Your task to perform on an android device: toggle improve location accuracy Image 0: 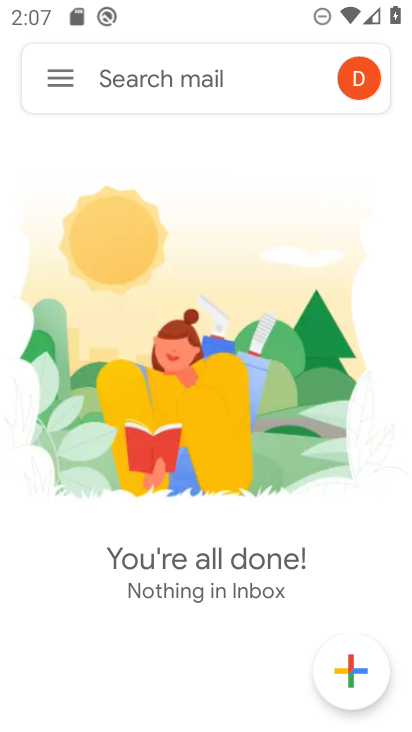
Step 0: press home button
Your task to perform on an android device: toggle improve location accuracy Image 1: 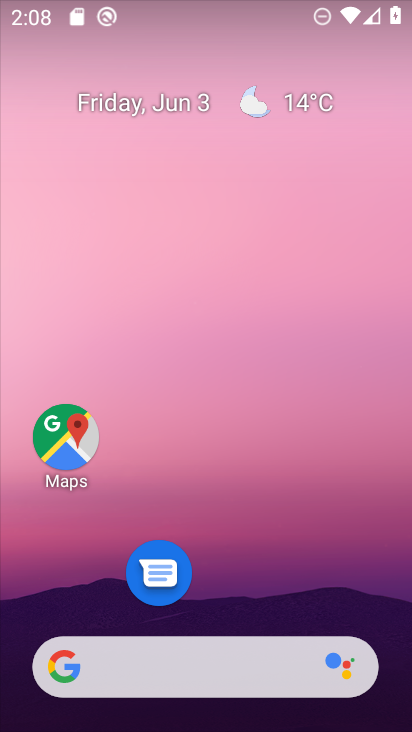
Step 1: drag from (338, 683) to (295, 68)
Your task to perform on an android device: toggle improve location accuracy Image 2: 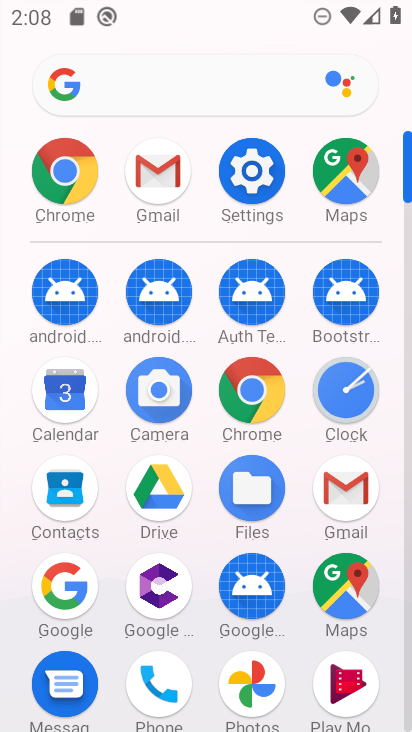
Step 2: click (251, 171)
Your task to perform on an android device: toggle improve location accuracy Image 3: 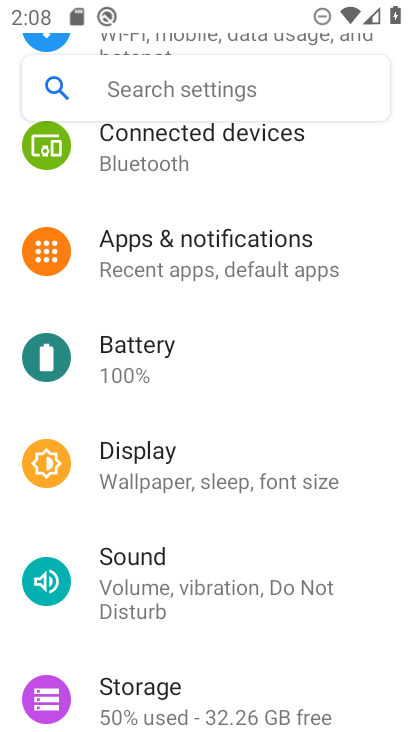
Step 3: drag from (191, 579) to (223, 209)
Your task to perform on an android device: toggle improve location accuracy Image 4: 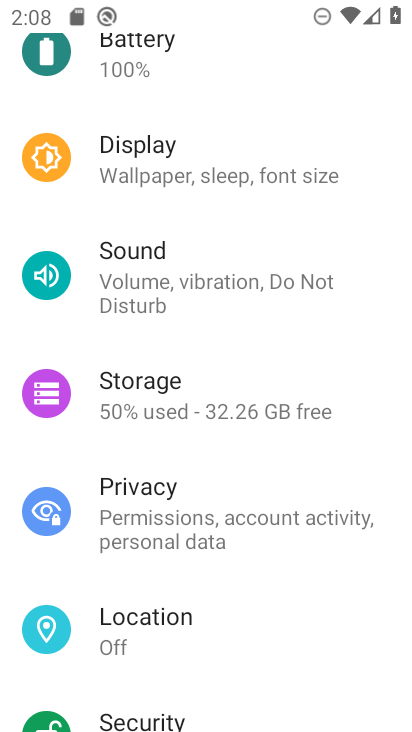
Step 4: click (191, 629)
Your task to perform on an android device: toggle improve location accuracy Image 5: 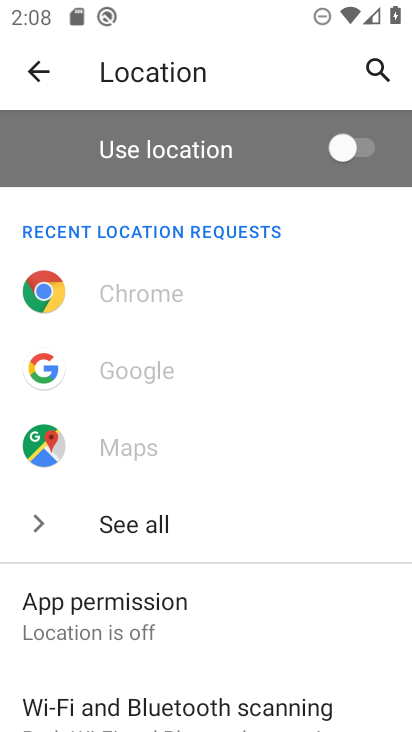
Step 5: drag from (212, 591) to (239, 193)
Your task to perform on an android device: toggle improve location accuracy Image 6: 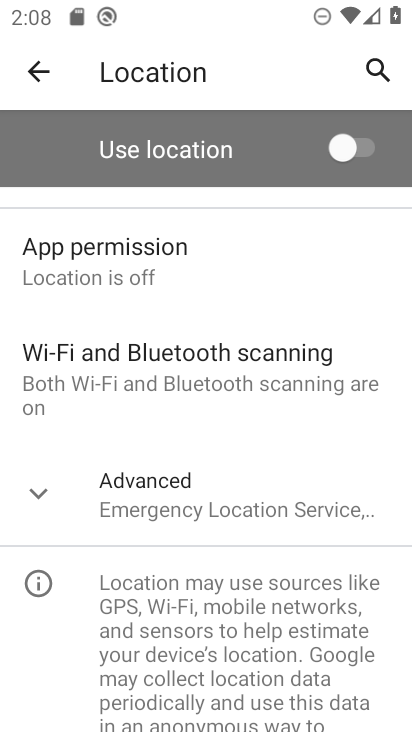
Step 6: click (216, 506)
Your task to perform on an android device: toggle improve location accuracy Image 7: 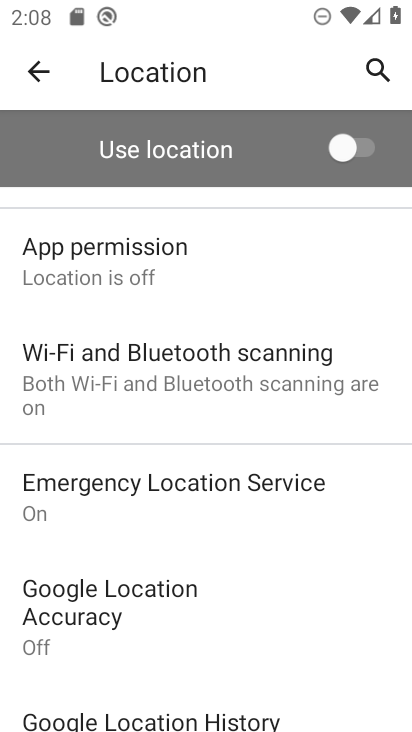
Step 7: click (170, 613)
Your task to perform on an android device: toggle improve location accuracy Image 8: 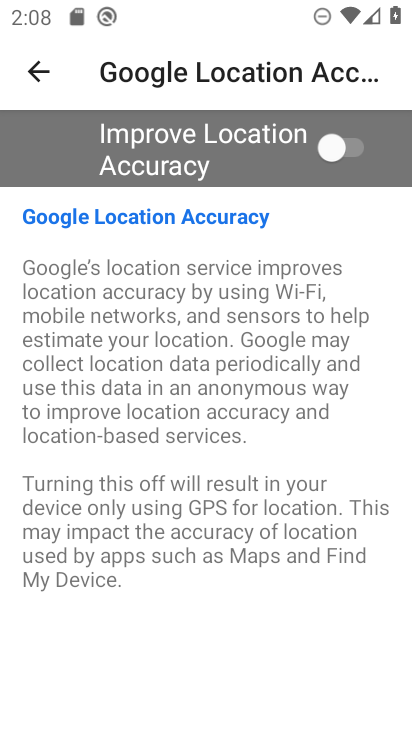
Step 8: click (360, 150)
Your task to perform on an android device: toggle improve location accuracy Image 9: 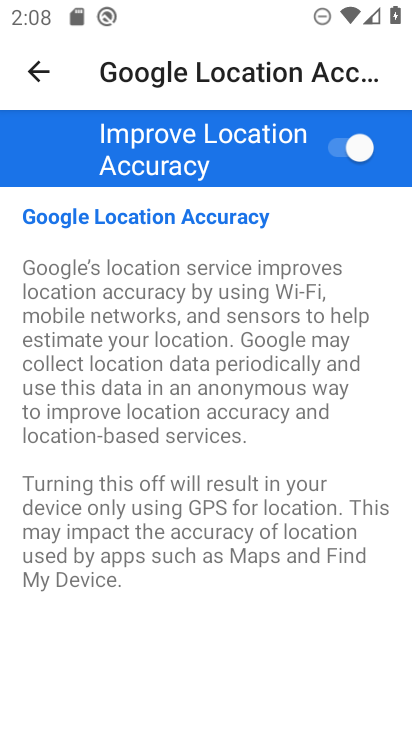
Step 9: task complete